Your task to perform on an android device: Open the Play Movies app and select the watchlist tab. Image 0: 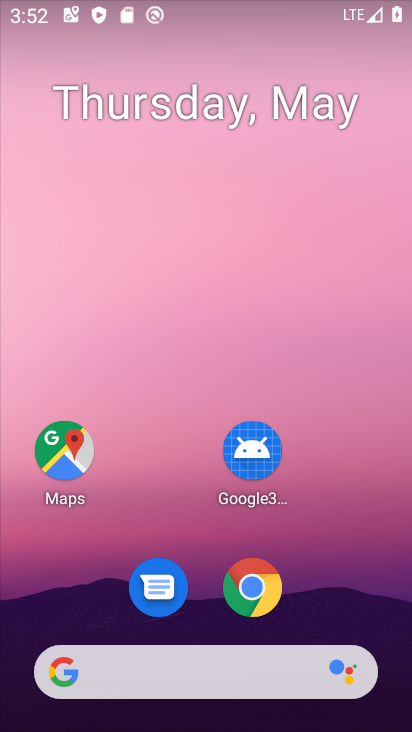
Step 0: drag from (187, 546) to (93, 142)
Your task to perform on an android device: Open the Play Movies app and select the watchlist tab. Image 1: 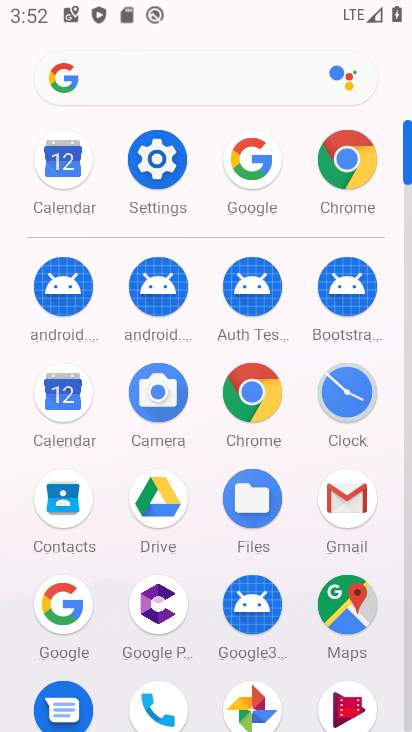
Step 1: drag from (297, 571) to (266, 265)
Your task to perform on an android device: Open the Play Movies app and select the watchlist tab. Image 2: 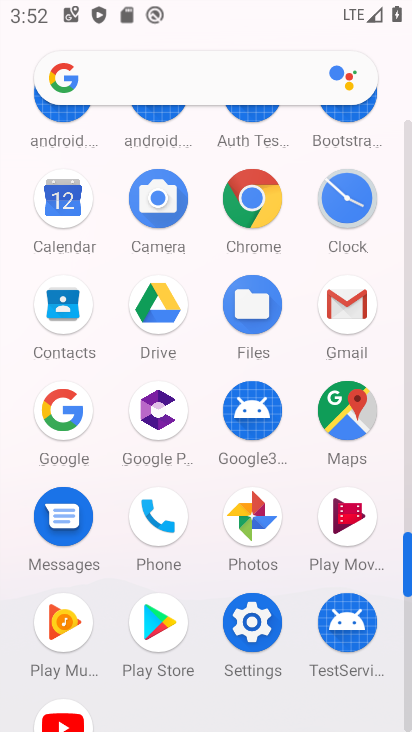
Step 2: click (390, 538)
Your task to perform on an android device: Open the Play Movies app and select the watchlist tab. Image 3: 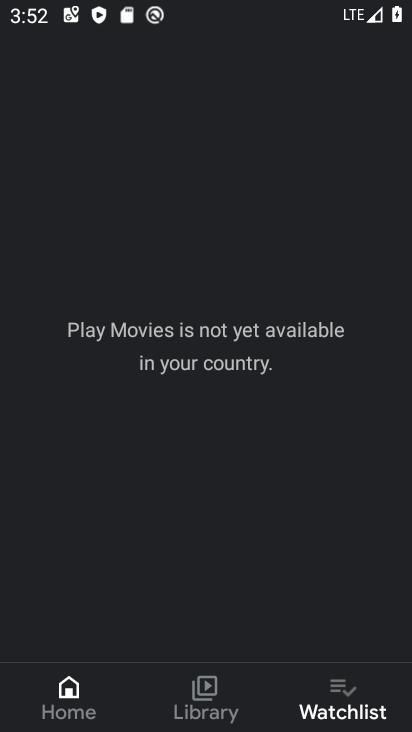
Step 3: click (350, 686)
Your task to perform on an android device: Open the Play Movies app and select the watchlist tab. Image 4: 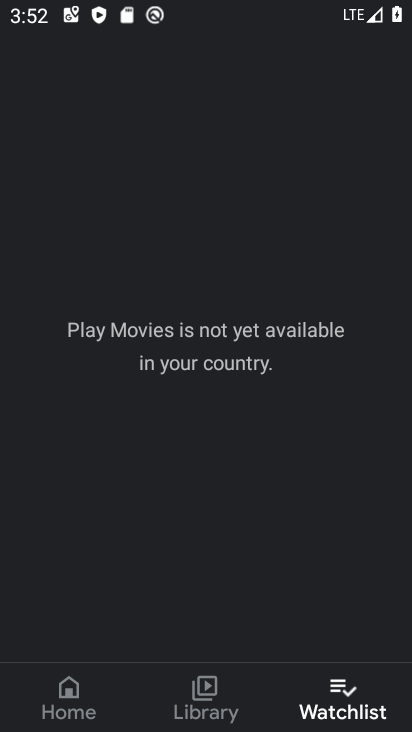
Step 4: task complete